Your task to perform on an android device: install app "Etsy: Buy & Sell Unique Items" Image 0: 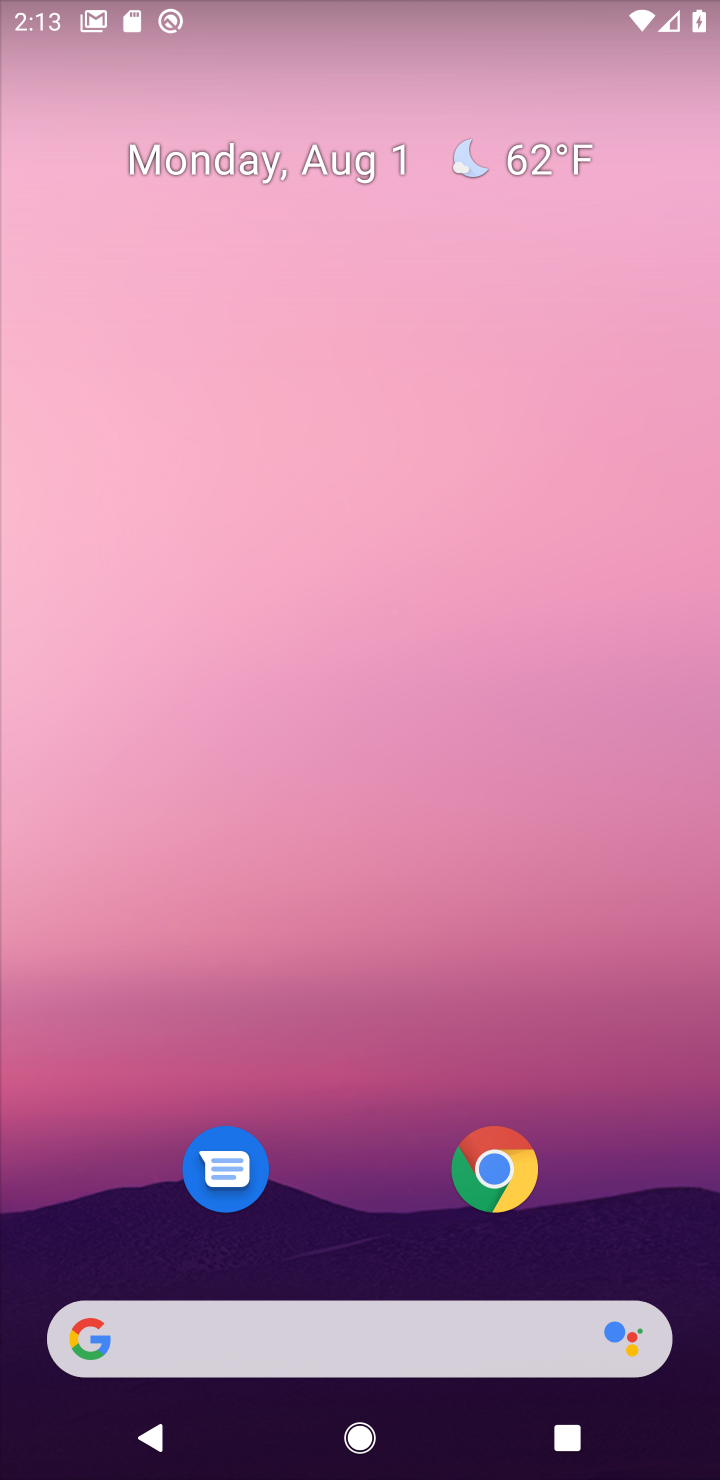
Step 0: drag from (311, 1001) to (311, 299)
Your task to perform on an android device: install app "Etsy: Buy & Sell Unique Items" Image 1: 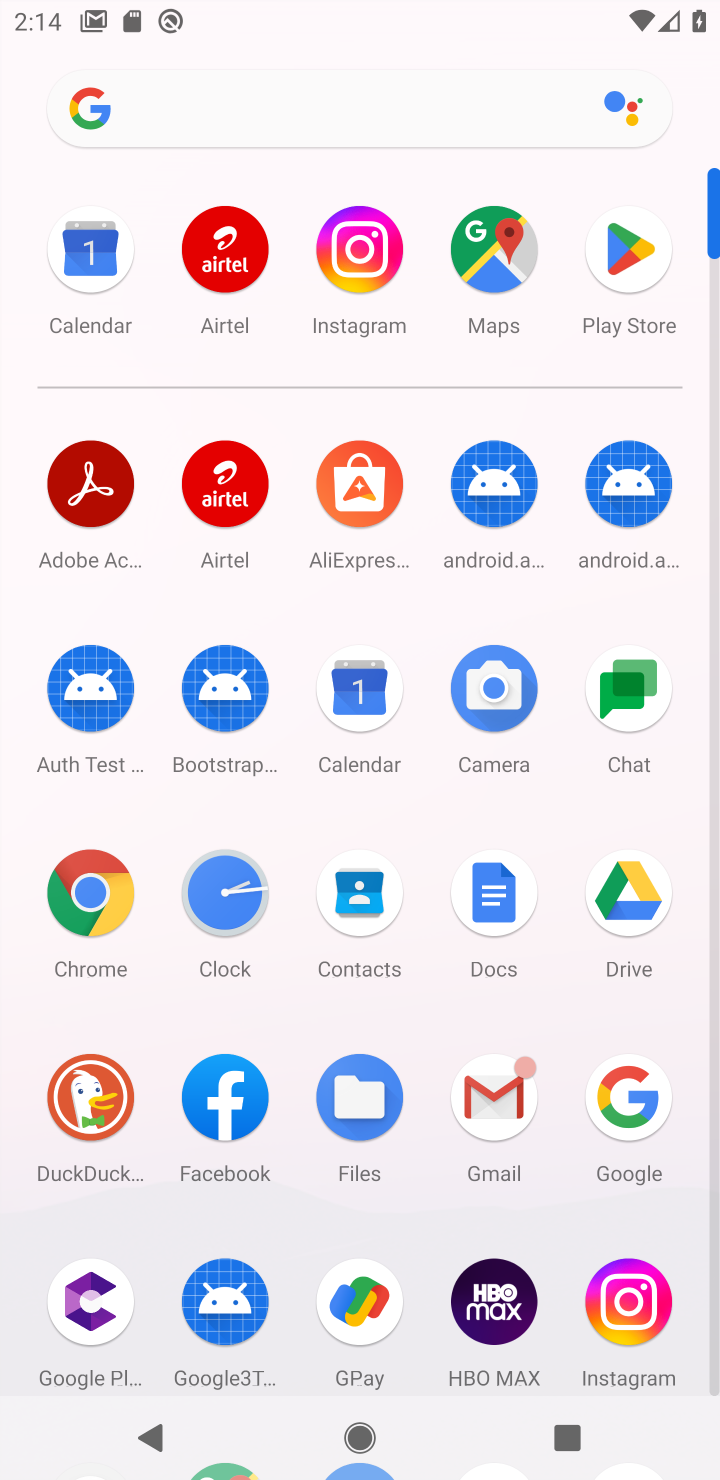
Step 1: click (609, 305)
Your task to perform on an android device: install app "Etsy: Buy & Sell Unique Items" Image 2: 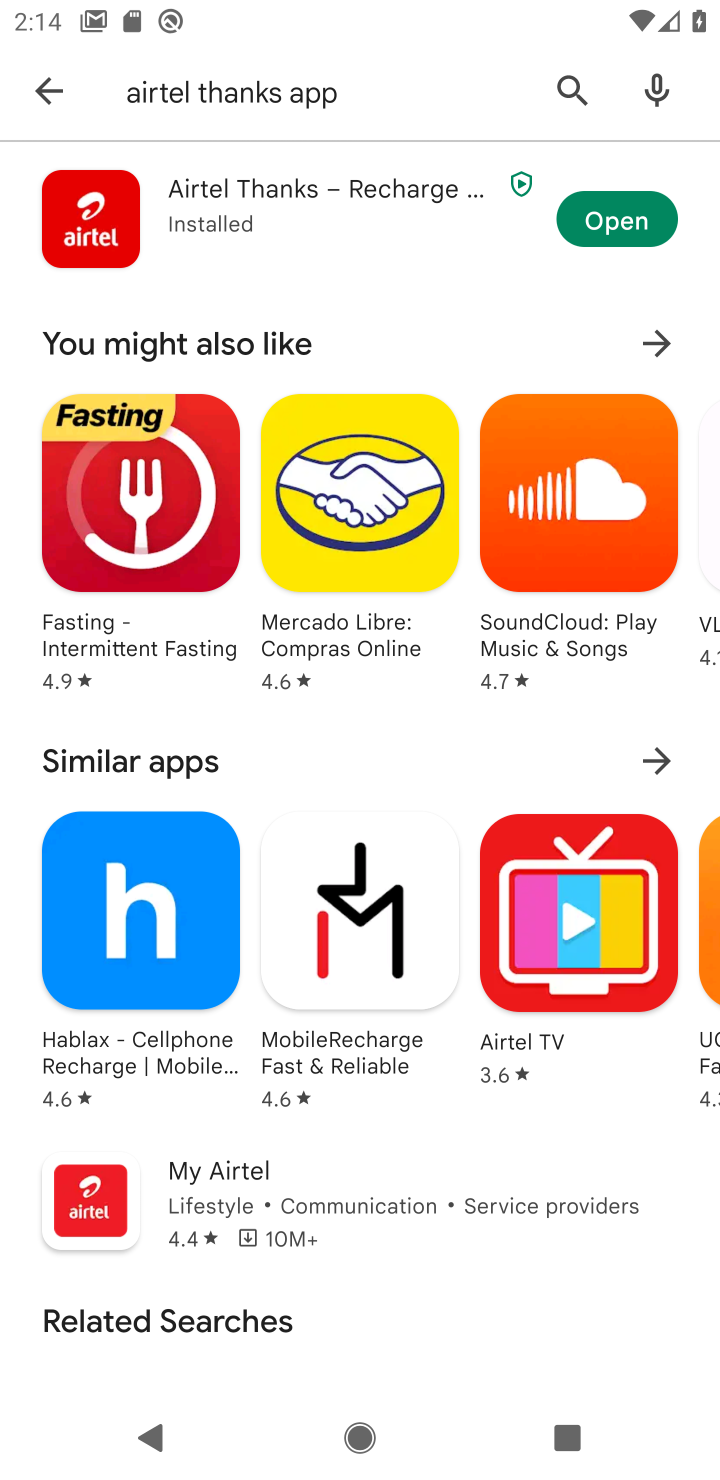
Step 2: click (30, 101)
Your task to perform on an android device: install app "Etsy: Buy & Sell Unique Items" Image 3: 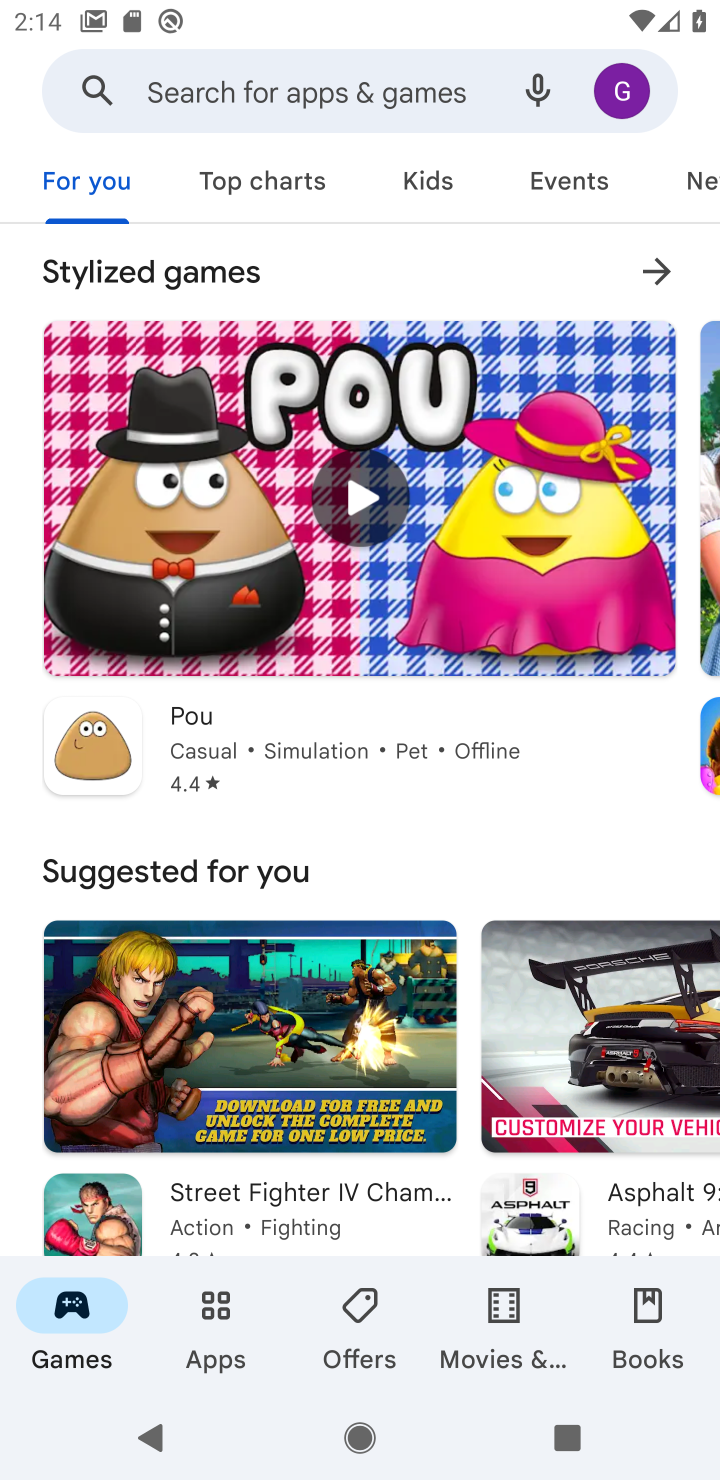
Step 3: click (248, 82)
Your task to perform on an android device: install app "Etsy: Buy & Sell Unique Items" Image 4: 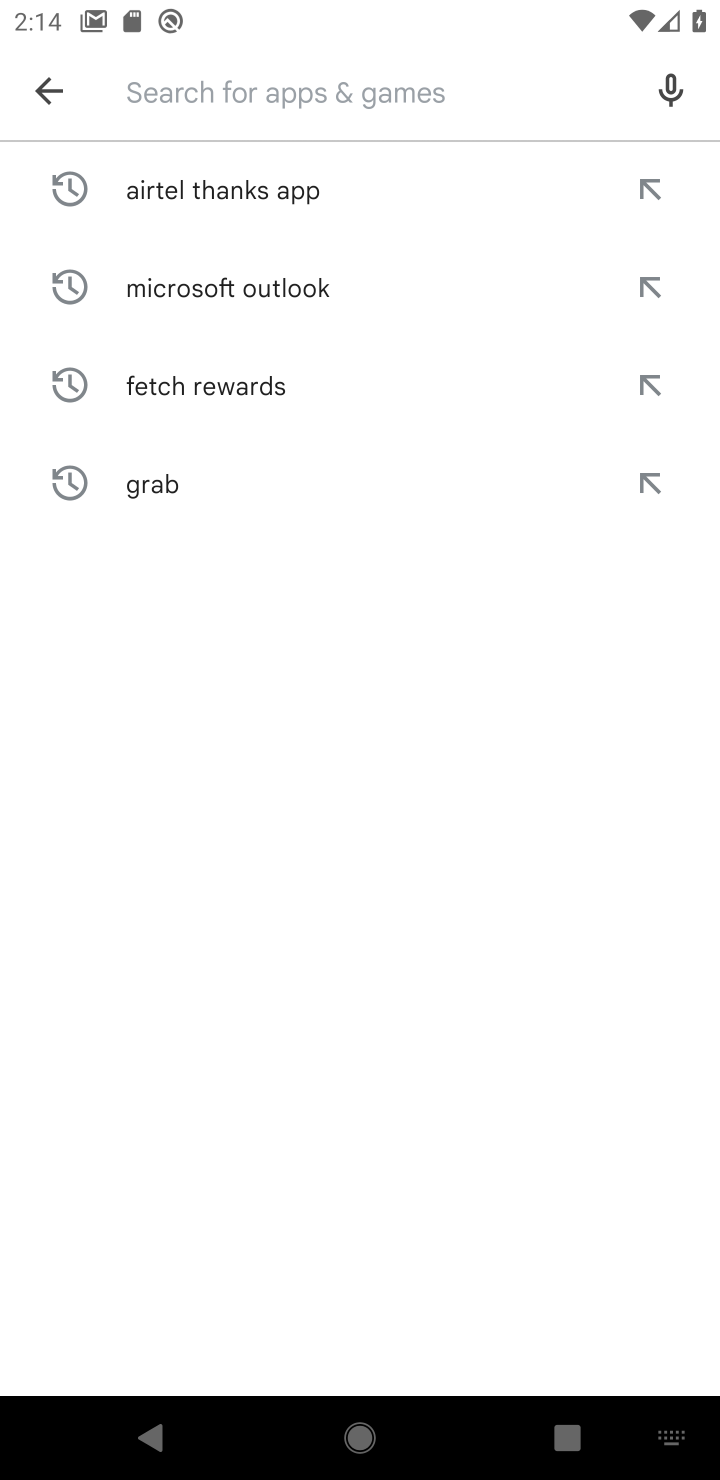
Step 4: type "Etsy: Buy & Sell Unique Items"
Your task to perform on an android device: install app "Etsy: Buy & Sell Unique Items" Image 5: 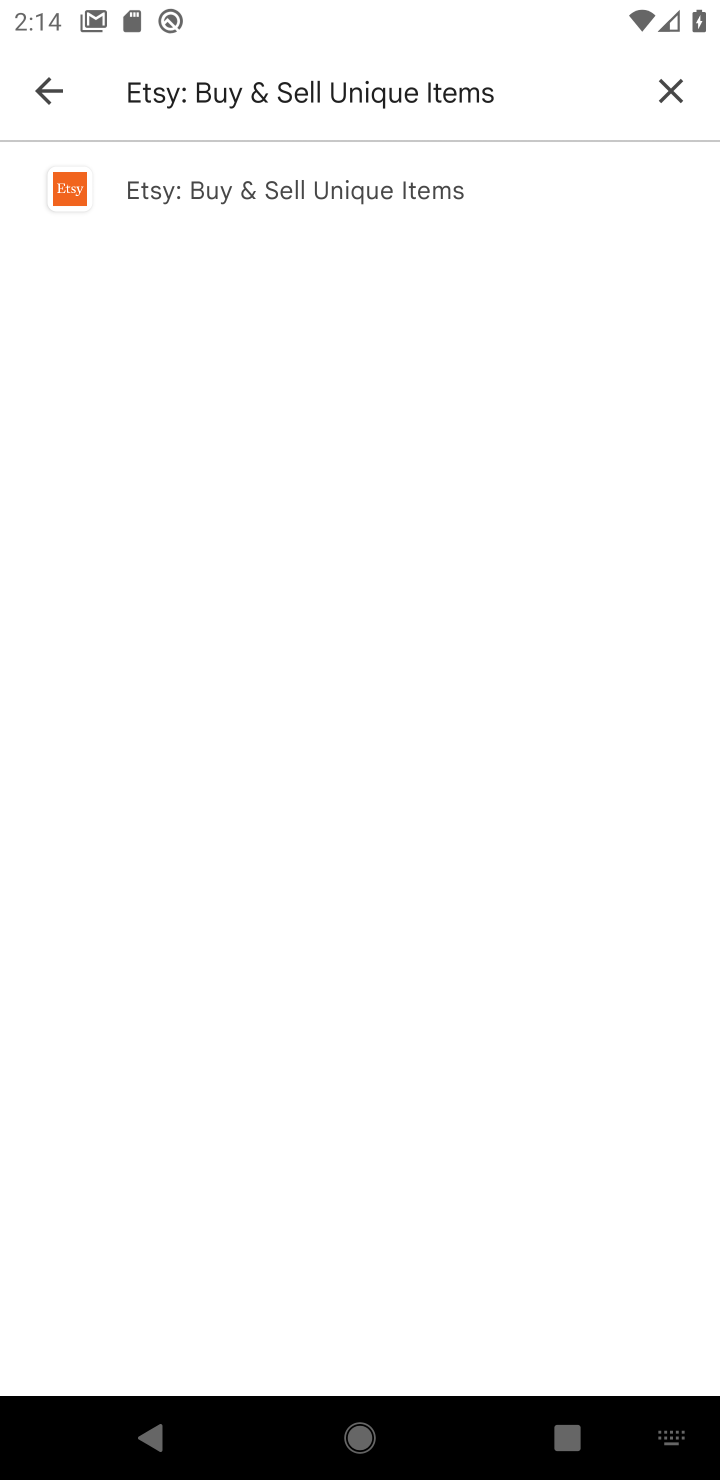
Step 5: click (246, 191)
Your task to perform on an android device: install app "Etsy: Buy & Sell Unique Items" Image 6: 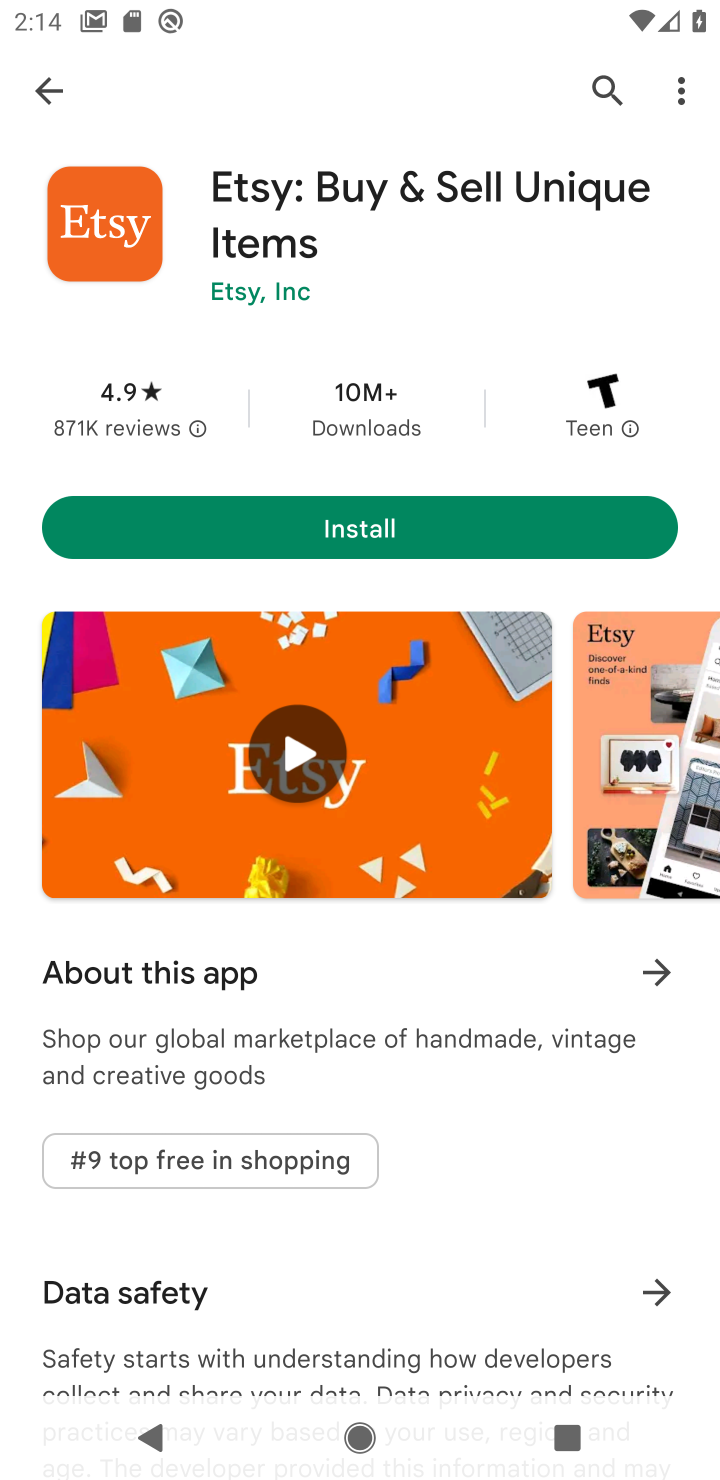
Step 6: click (367, 545)
Your task to perform on an android device: install app "Etsy: Buy & Sell Unique Items" Image 7: 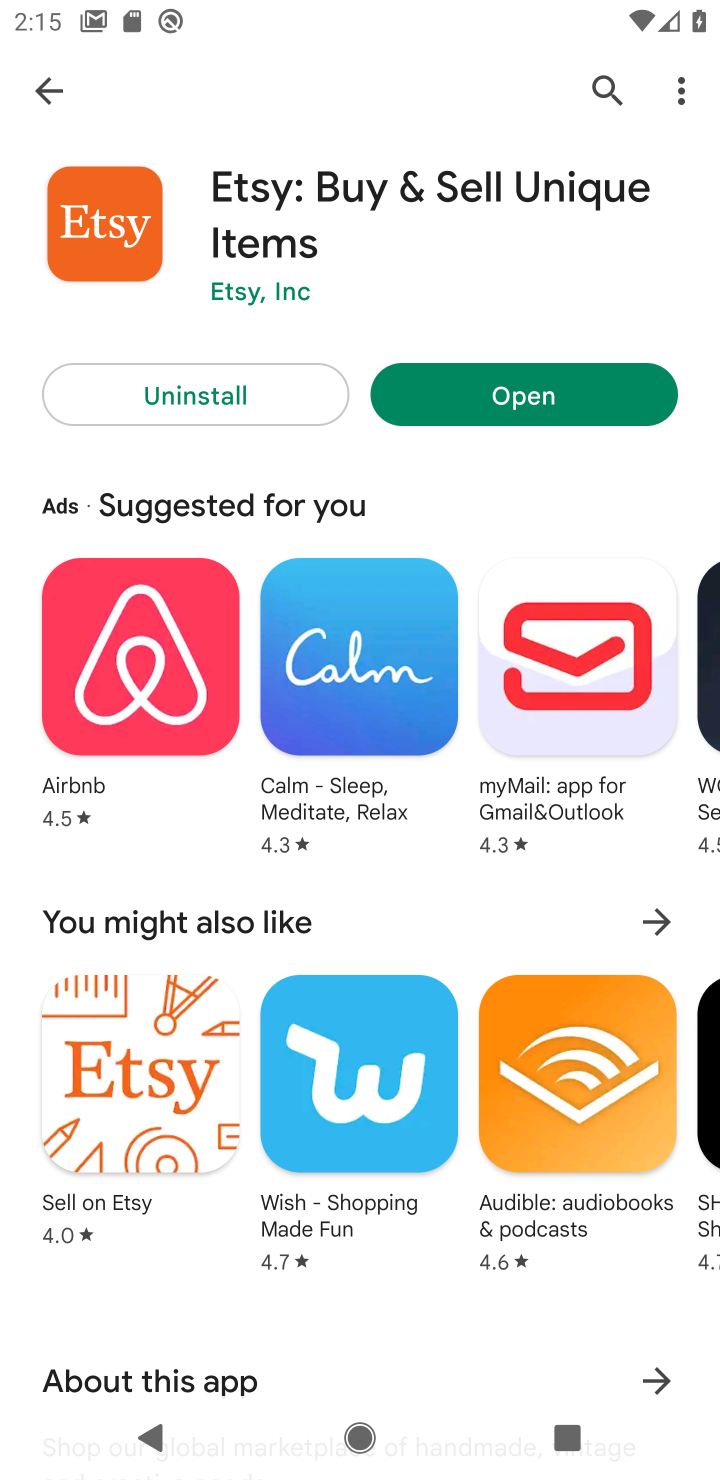
Step 7: click (522, 429)
Your task to perform on an android device: install app "Etsy: Buy & Sell Unique Items" Image 8: 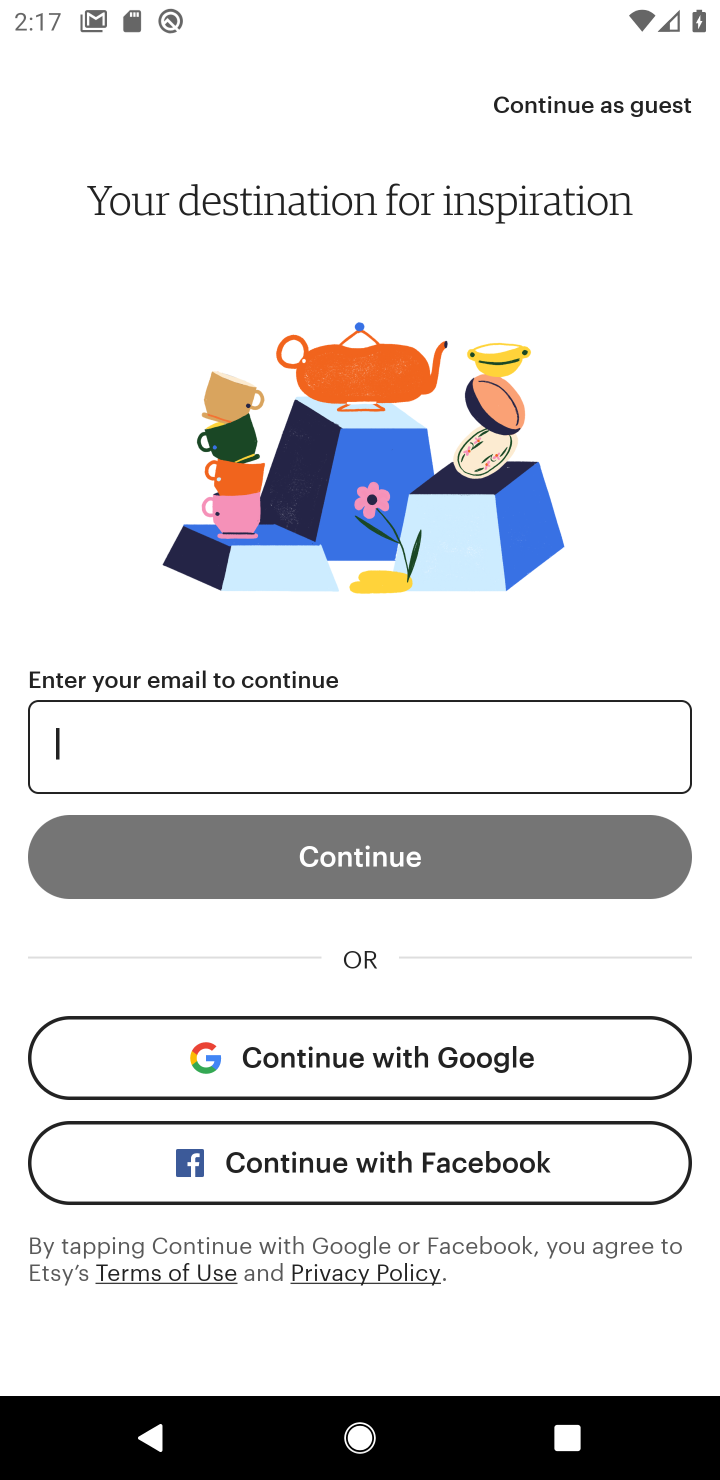
Step 8: press back button
Your task to perform on an android device: install app "Etsy: Buy & Sell Unique Items" Image 9: 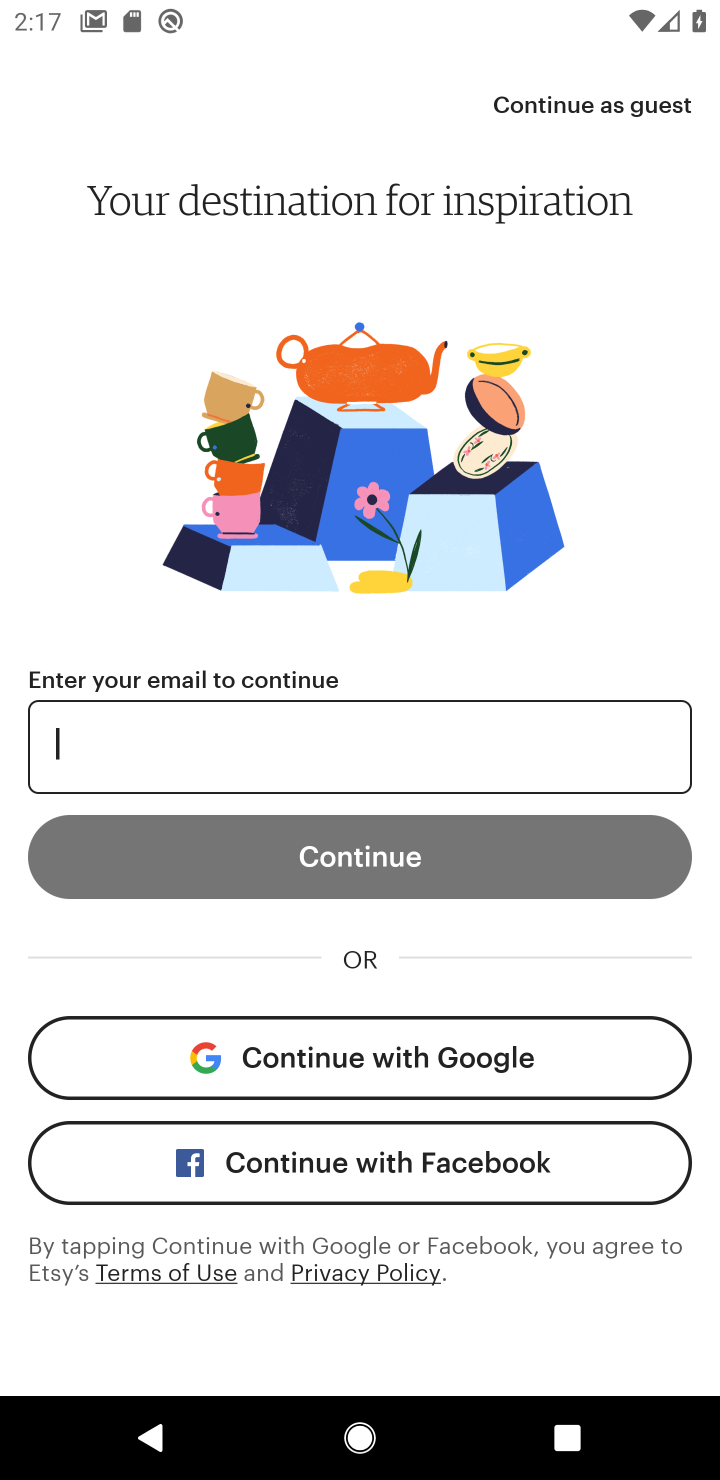
Step 9: type "Etsy: Buy & Sell Unique Items"
Your task to perform on an android device: install app "Etsy: Buy & Sell Unique Items" Image 10: 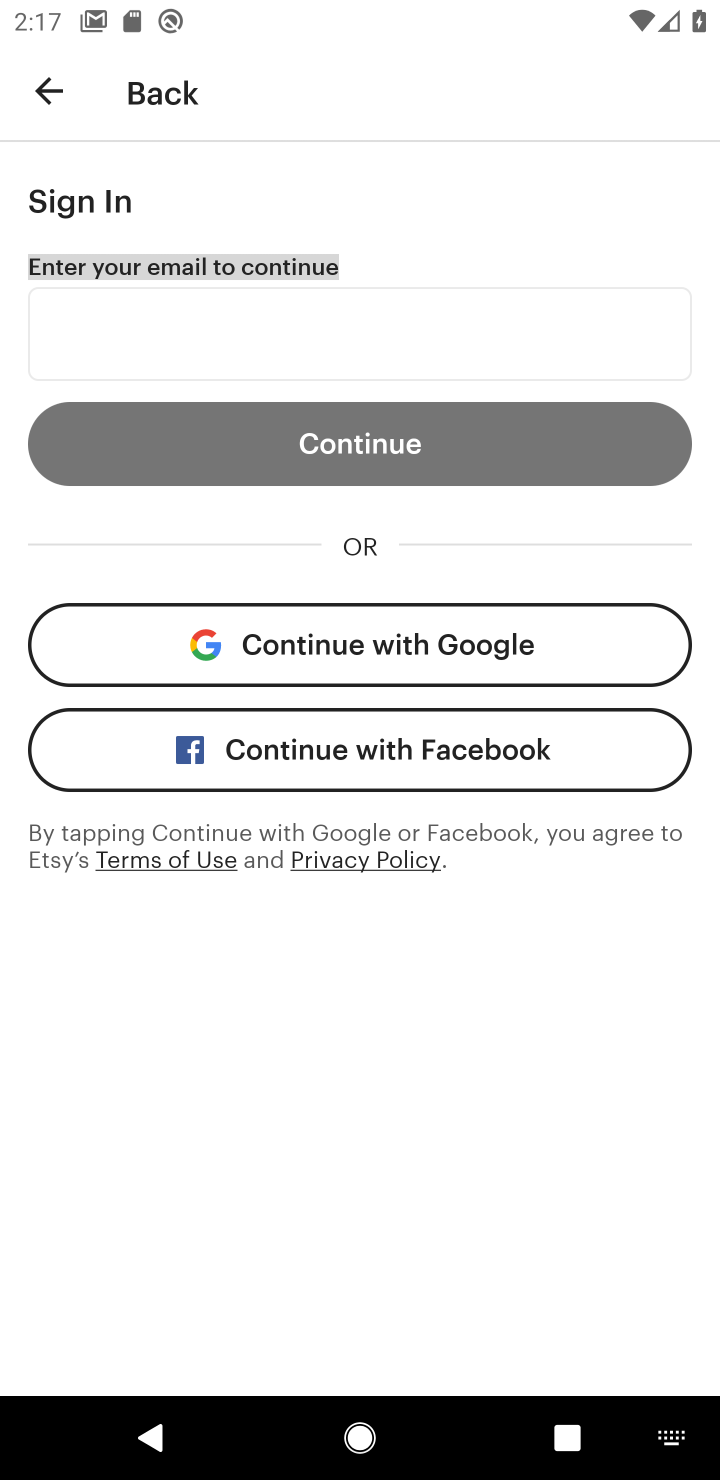
Step 10: press back button
Your task to perform on an android device: install app "Etsy: Buy & Sell Unique Items" Image 11: 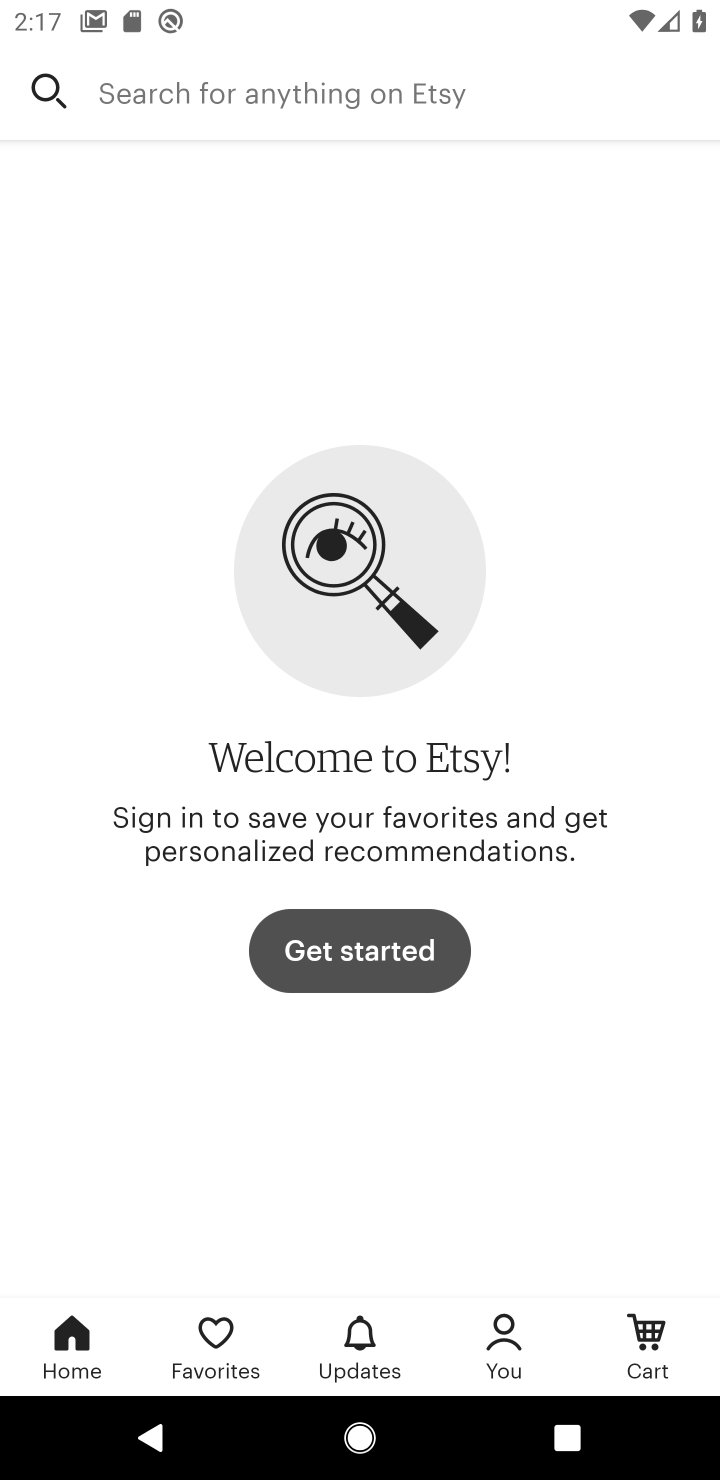
Step 11: press back button
Your task to perform on an android device: install app "Etsy: Buy & Sell Unique Items" Image 12: 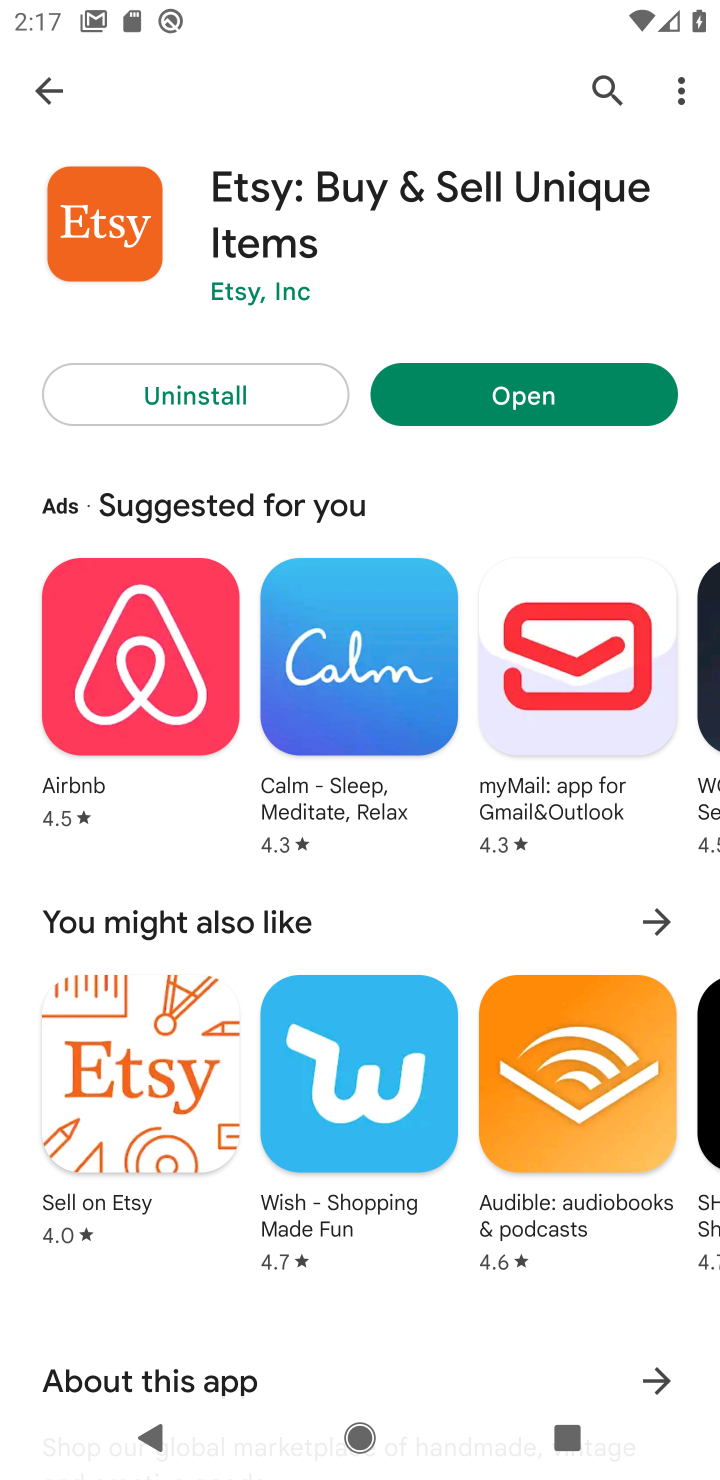
Step 12: click (40, 87)
Your task to perform on an android device: install app "Etsy: Buy & Sell Unique Items" Image 13: 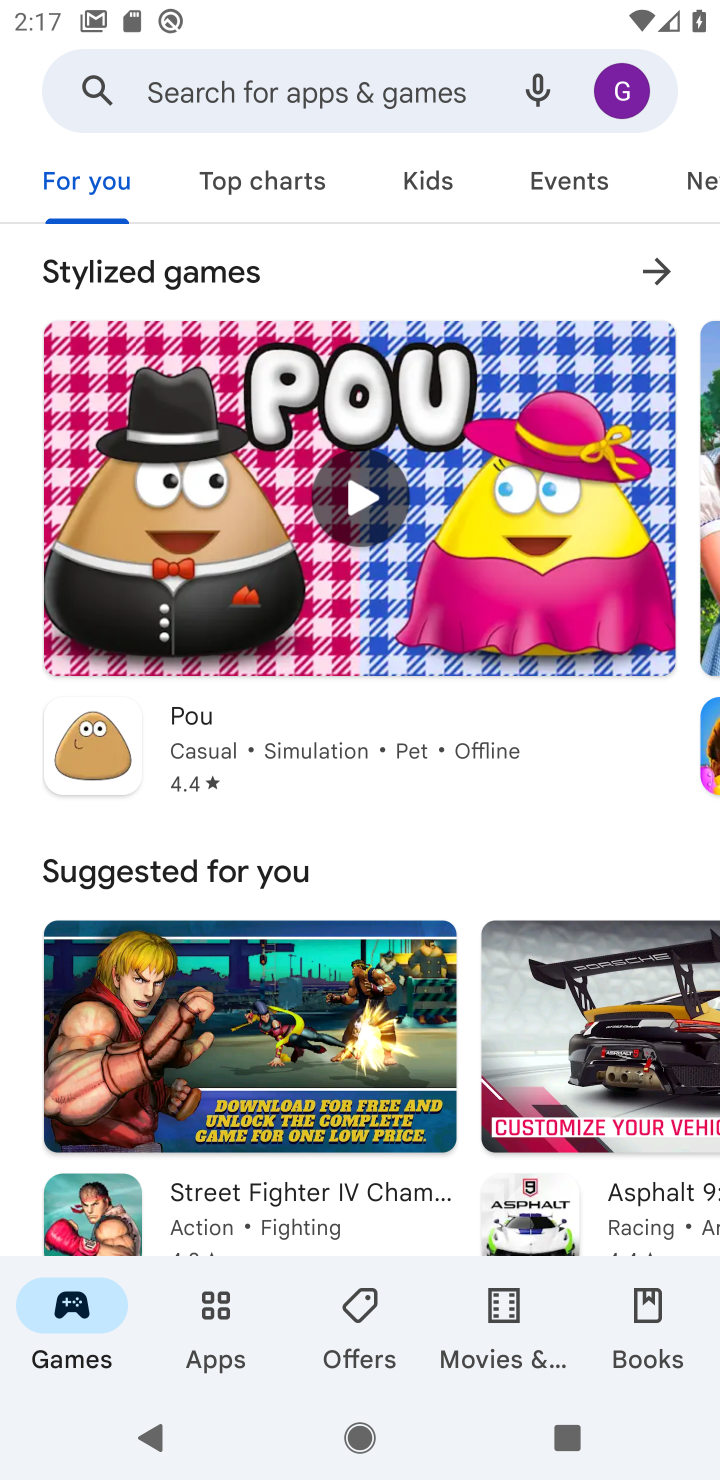
Step 13: click (294, 87)
Your task to perform on an android device: install app "Etsy: Buy & Sell Unique Items" Image 14: 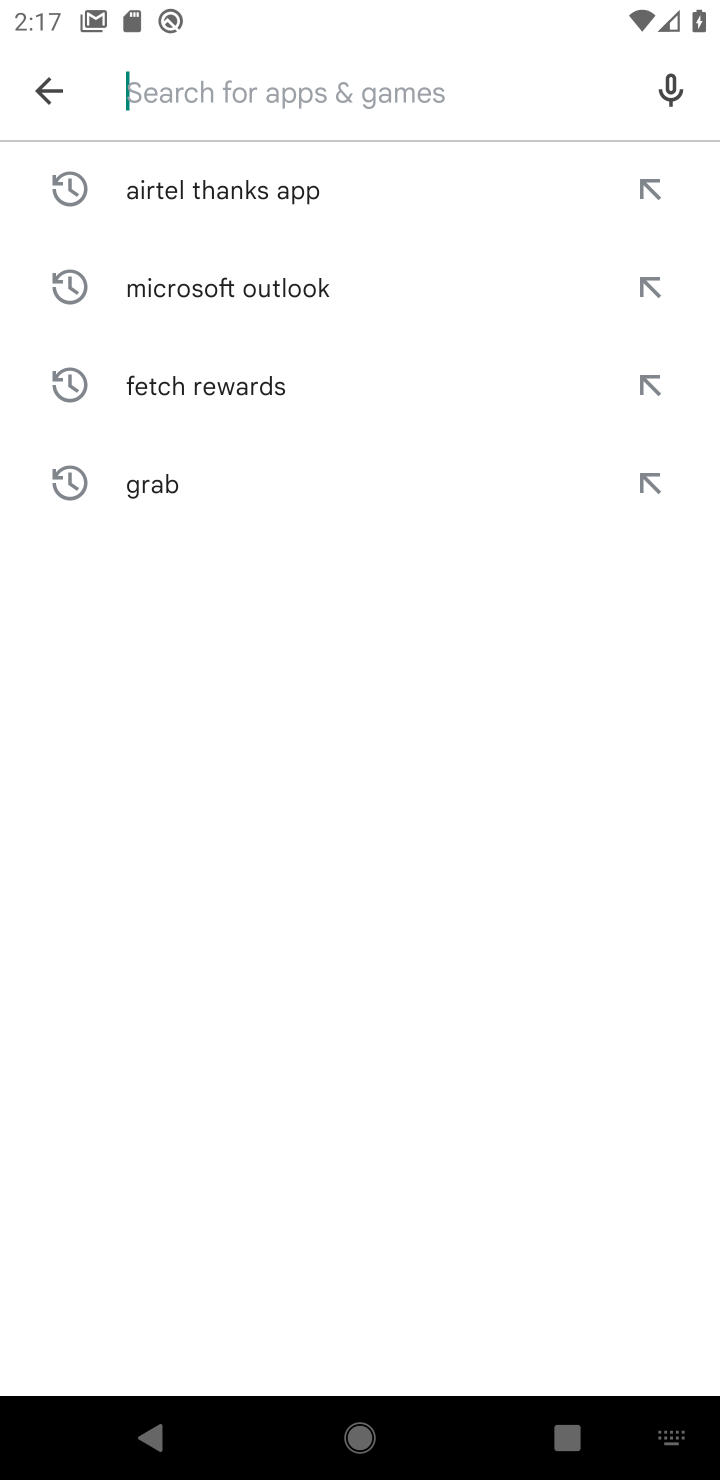
Step 14: type "Etsy: Buy & Sell Unique Items"
Your task to perform on an android device: install app "Etsy: Buy & Sell Unique Items" Image 15: 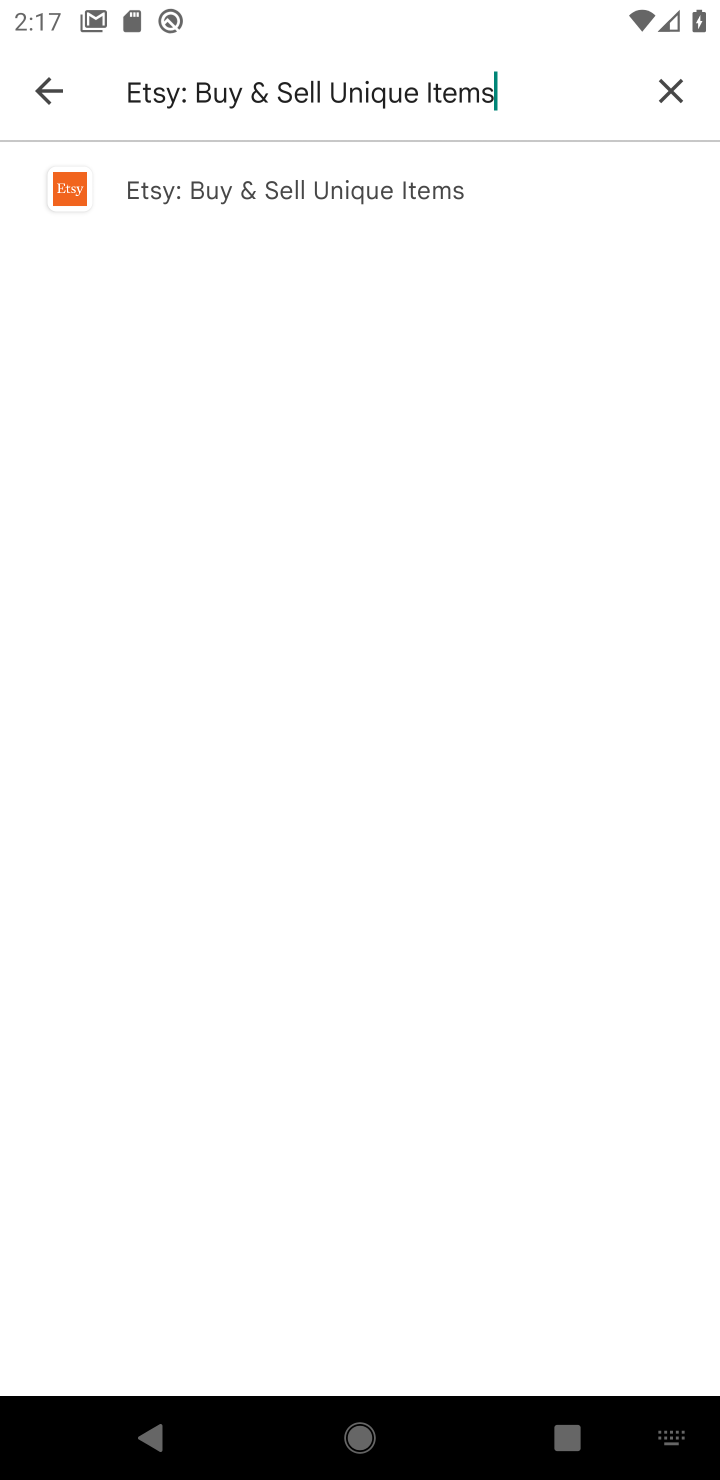
Step 15: click (219, 205)
Your task to perform on an android device: install app "Etsy: Buy & Sell Unique Items" Image 16: 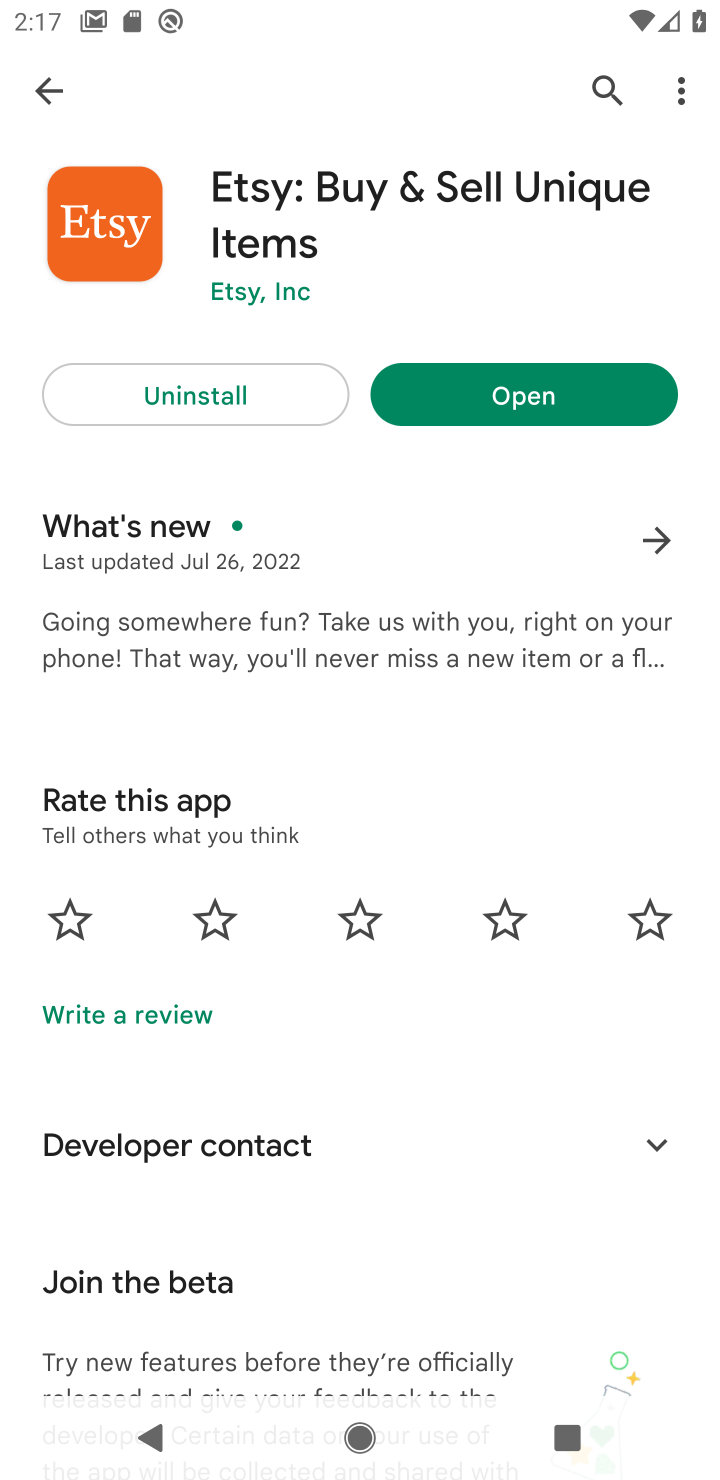
Step 16: click (452, 391)
Your task to perform on an android device: install app "Etsy: Buy & Sell Unique Items" Image 17: 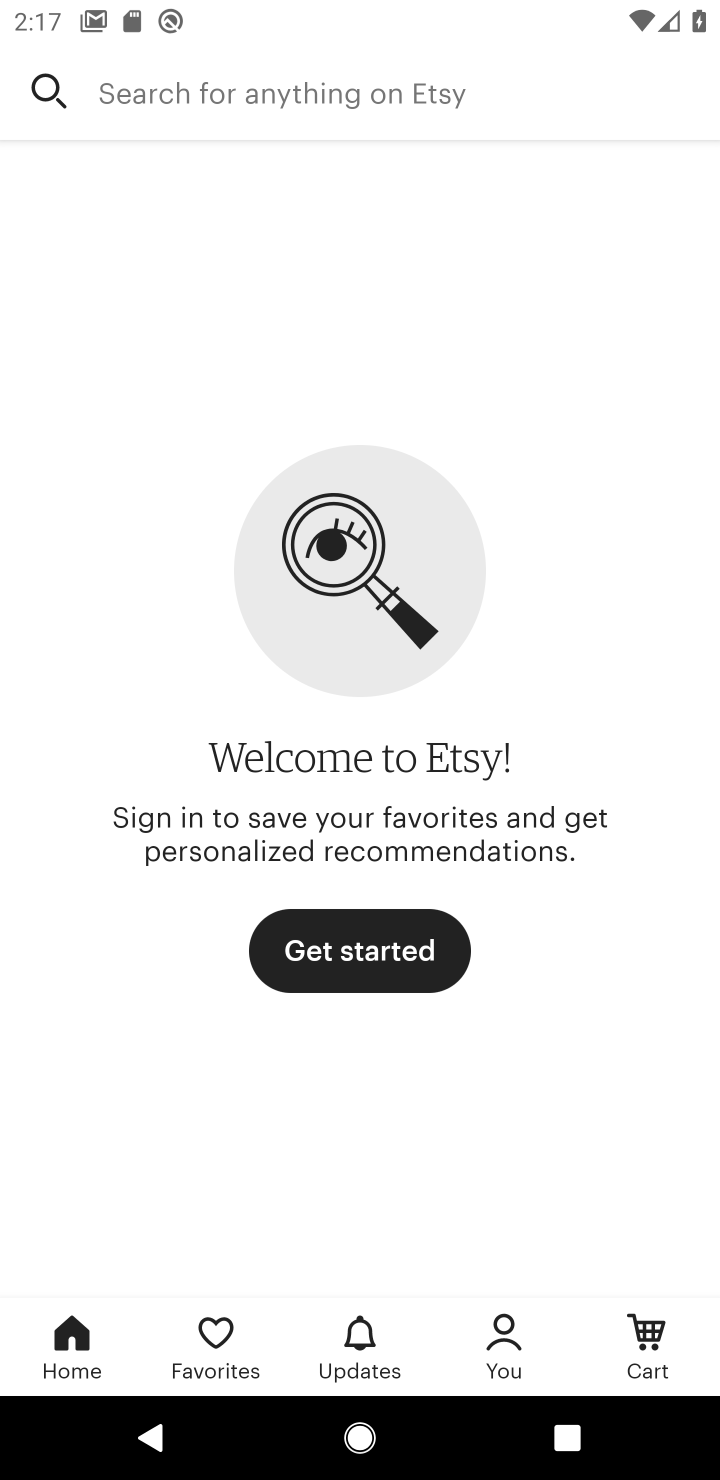
Step 17: task complete